Your task to perform on an android device: toggle sleep mode Image 0: 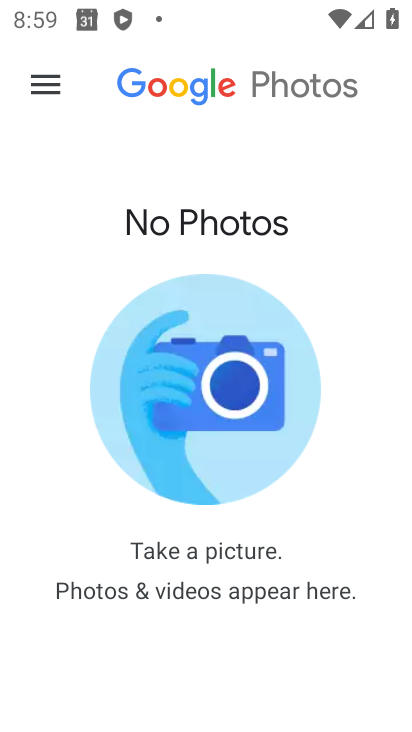
Step 0: press back button
Your task to perform on an android device: toggle sleep mode Image 1: 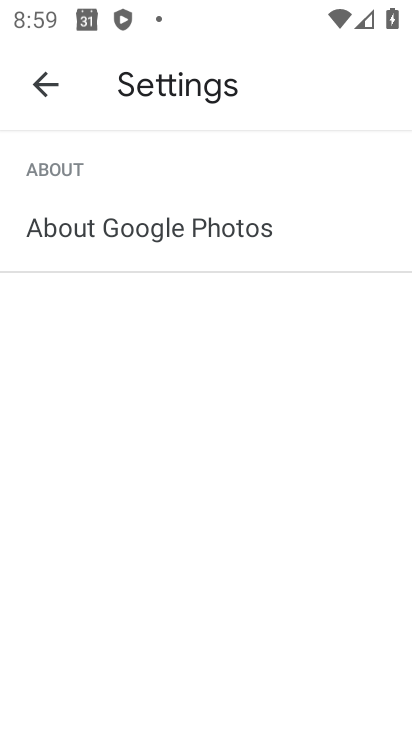
Step 1: press back button
Your task to perform on an android device: toggle sleep mode Image 2: 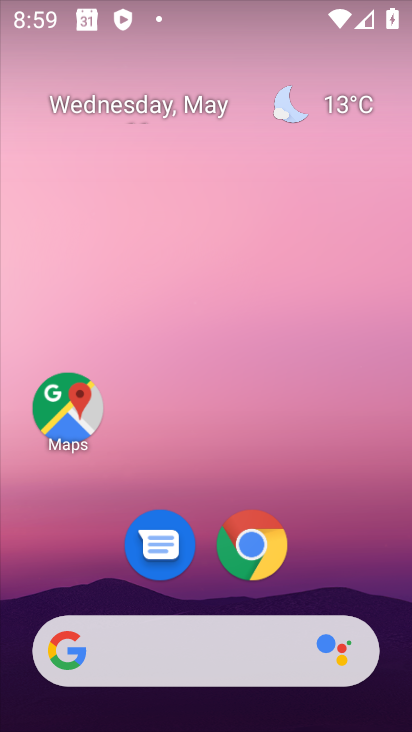
Step 2: drag from (372, 585) to (251, 53)
Your task to perform on an android device: toggle sleep mode Image 3: 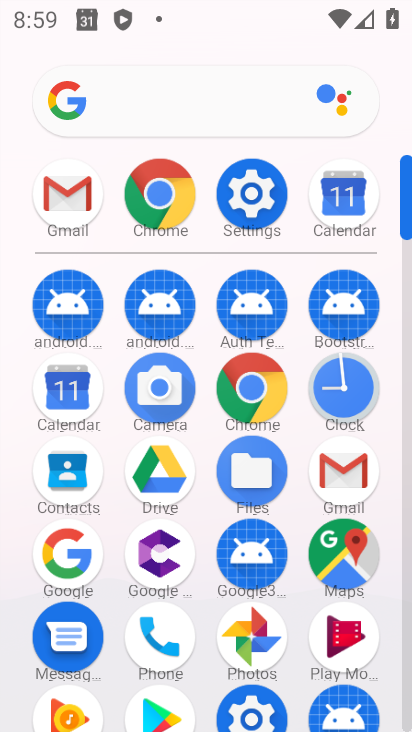
Step 3: drag from (11, 595) to (27, 314)
Your task to perform on an android device: toggle sleep mode Image 4: 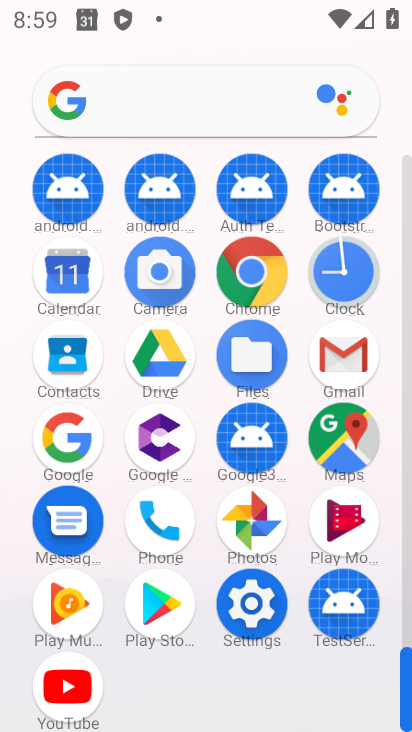
Step 4: click (250, 603)
Your task to perform on an android device: toggle sleep mode Image 5: 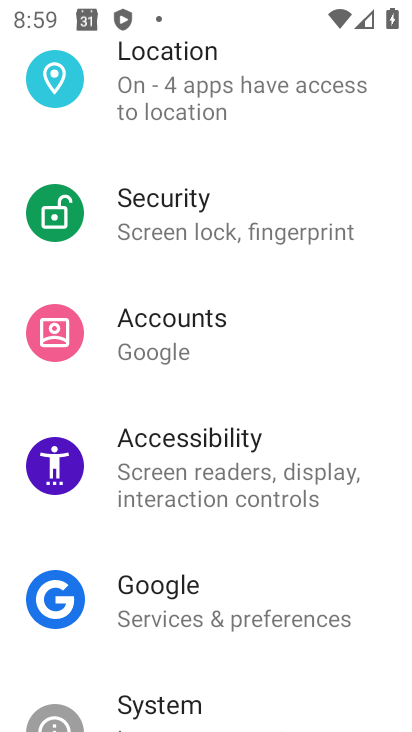
Step 5: drag from (280, 157) to (301, 552)
Your task to perform on an android device: toggle sleep mode Image 6: 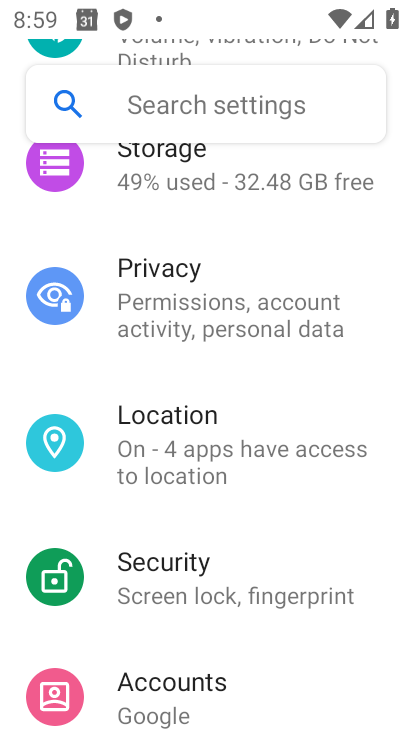
Step 6: drag from (245, 230) to (248, 606)
Your task to perform on an android device: toggle sleep mode Image 7: 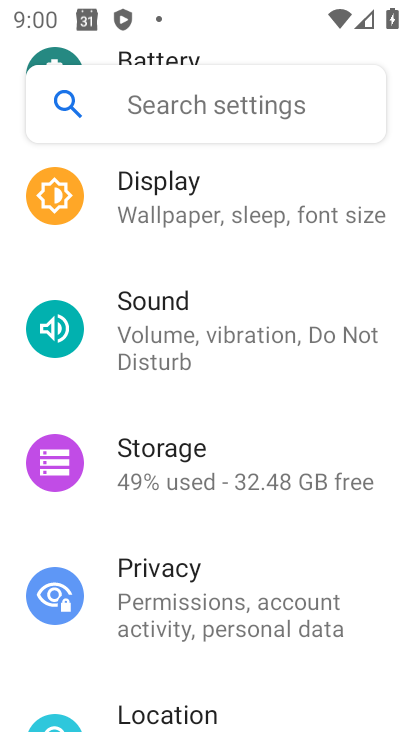
Step 7: click (235, 213)
Your task to perform on an android device: toggle sleep mode Image 8: 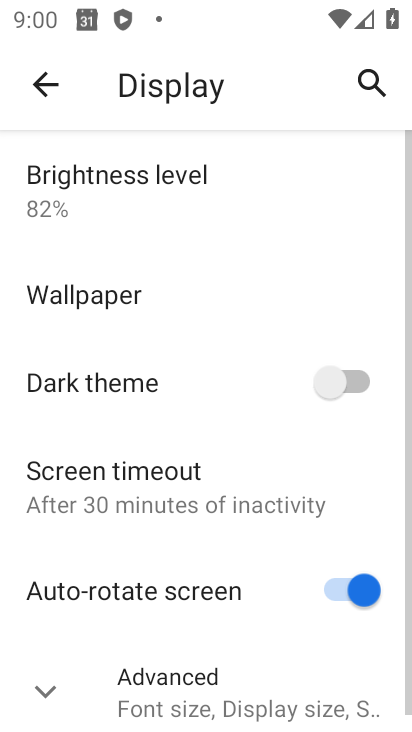
Step 8: drag from (207, 628) to (215, 147)
Your task to perform on an android device: toggle sleep mode Image 9: 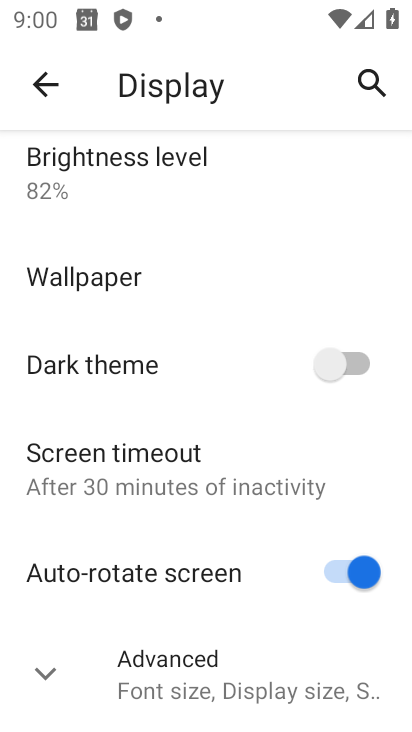
Step 9: click (55, 673)
Your task to perform on an android device: toggle sleep mode Image 10: 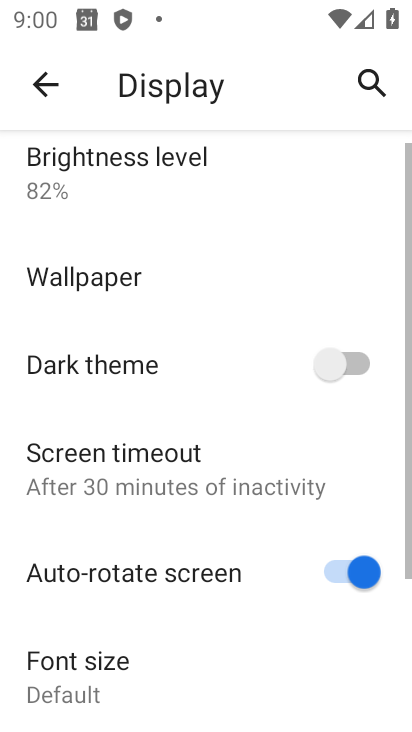
Step 10: task complete